Your task to perform on an android device: Open privacy settings Image 0: 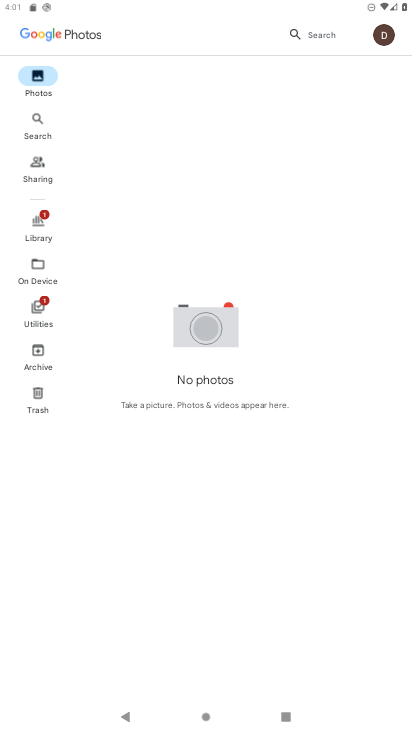
Step 0: press home button
Your task to perform on an android device: Open privacy settings Image 1: 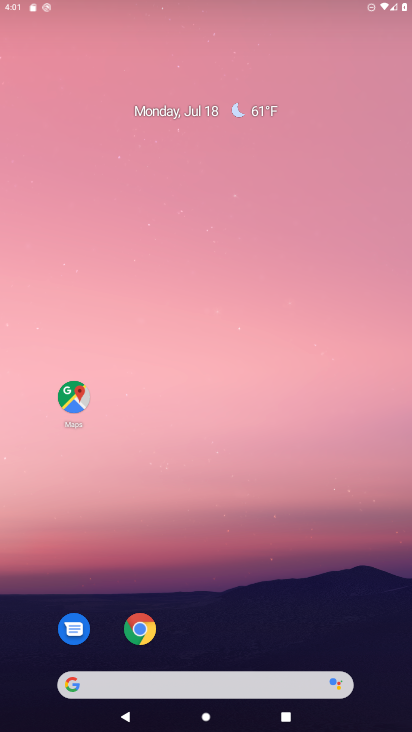
Step 1: drag from (209, 667) to (254, 279)
Your task to perform on an android device: Open privacy settings Image 2: 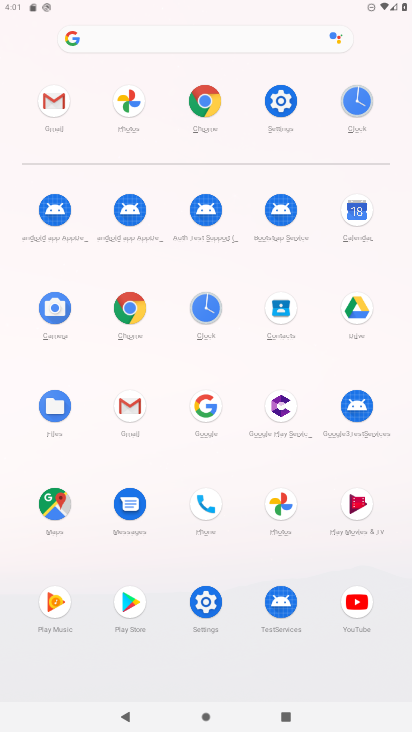
Step 2: click (279, 97)
Your task to perform on an android device: Open privacy settings Image 3: 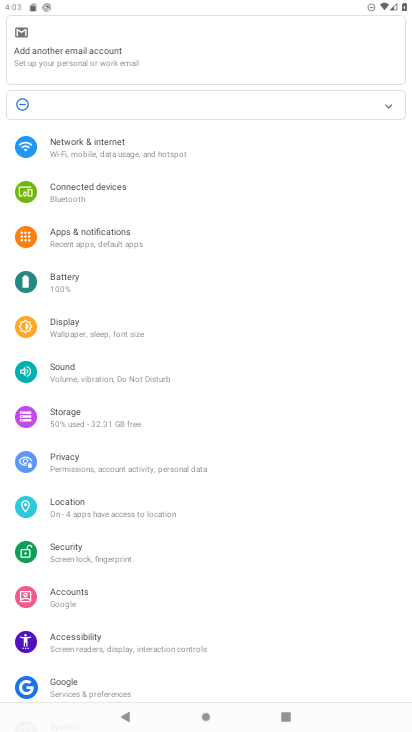
Step 3: click (72, 468)
Your task to perform on an android device: Open privacy settings Image 4: 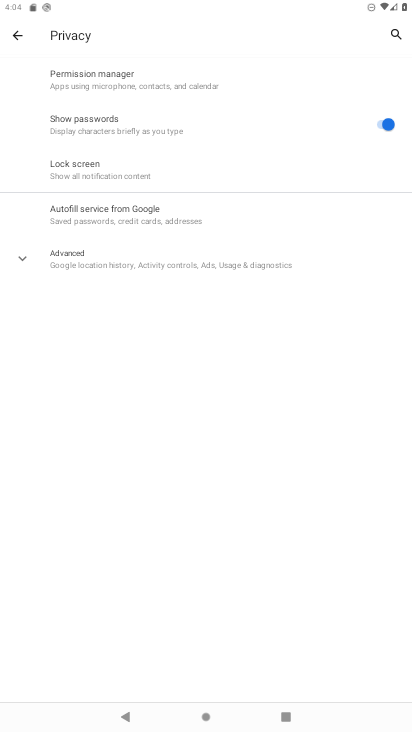
Step 4: click (98, 270)
Your task to perform on an android device: Open privacy settings Image 5: 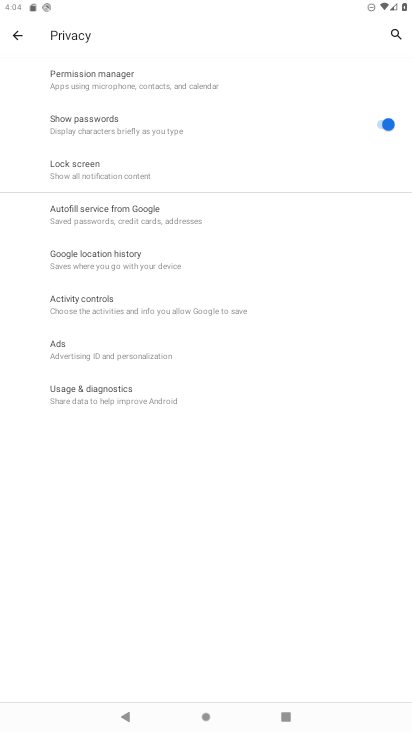
Step 5: task complete